Your task to perform on an android device: toggle show notifications on the lock screen Image 0: 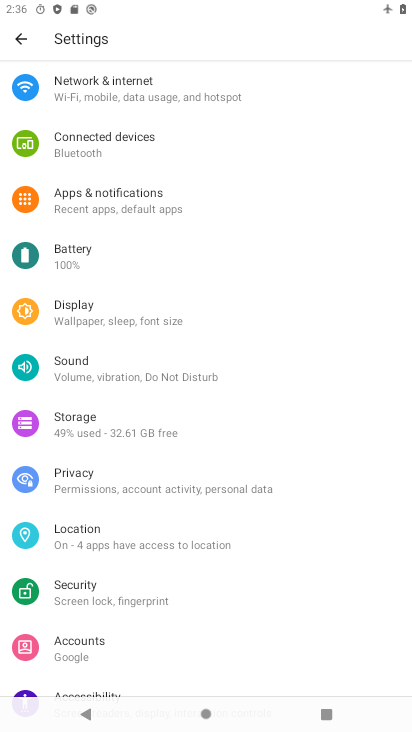
Step 0: click (103, 200)
Your task to perform on an android device: toggle show notifications on the lock screen Image 1: 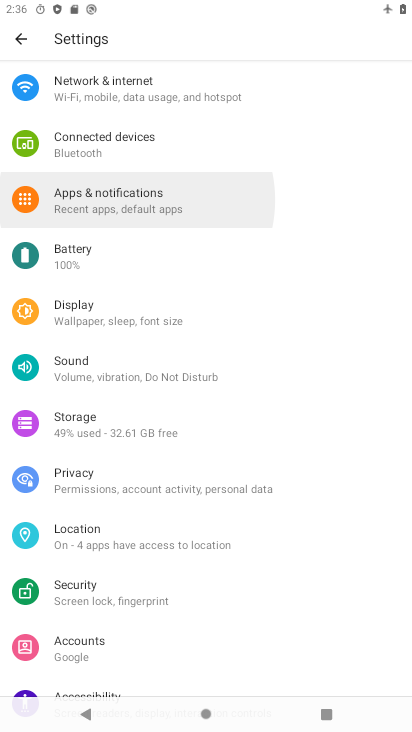
Step 1: click (103, 200)
Your task to perform on an android device: toggle show notifications on the lock screen Image 2: 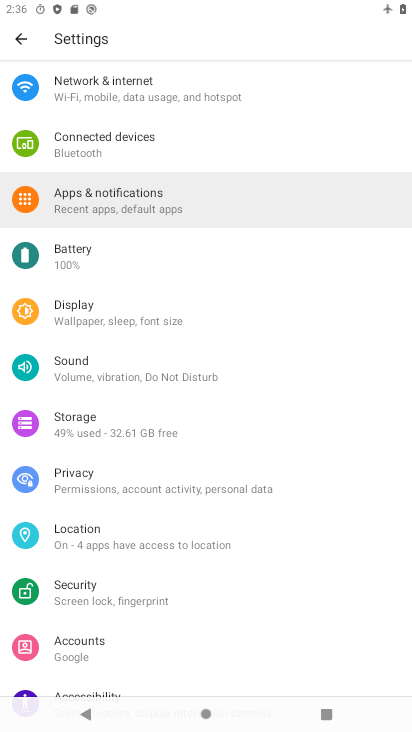
Step 2: click (103, 200)
Your task to perform on an android device: toggle show notifications on the lock screen Image 3: 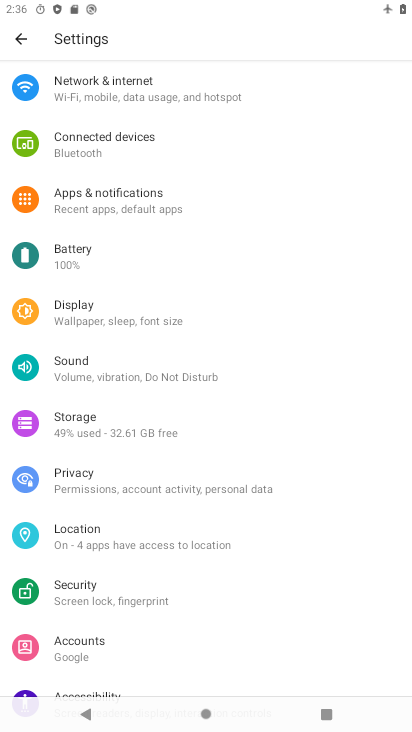
Step 3: click (104, 200)
Your task to perform on an android device: toggle show notifications on the lock screen Image 4: 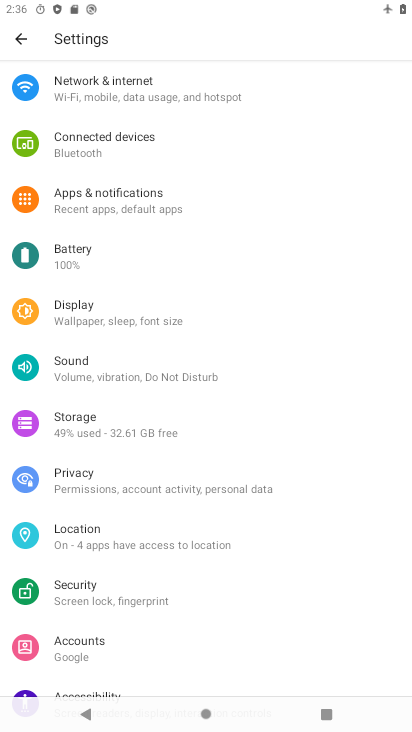
Step 4: click (104, 200)
Your task to perform on an android device: toggle show notifications on the lock screen Image 5: 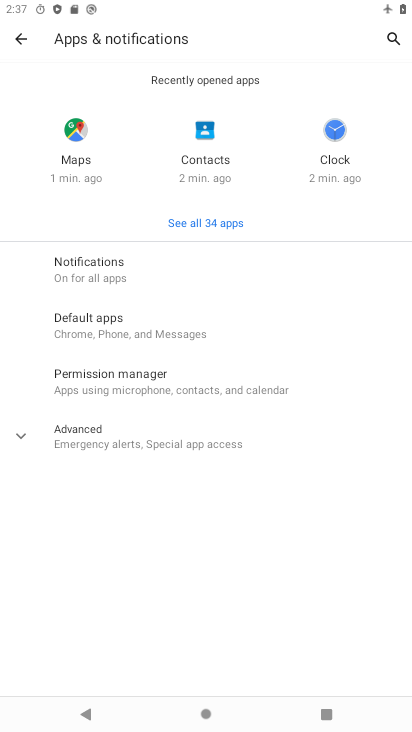
Step 5: click (87, 273)
Your task to perform on an android device: toggle show notifications on the lock screen Image 6: 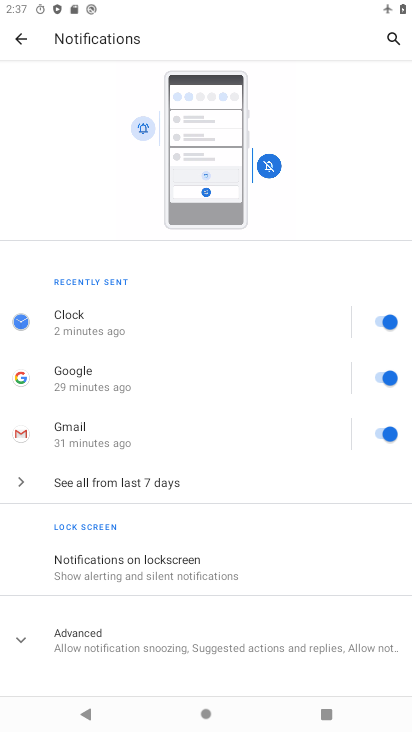
Step 6: click (104, 261)
Your task to perform on an android device: toggle show notifications on the lock screen Image 7: 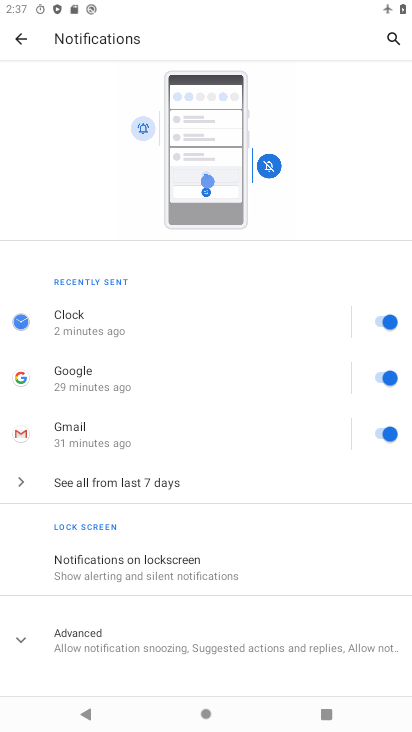
Step 7: click (104, 261)
Your task to perform on an android device: toggle show notifications on the lock screen Image 8: 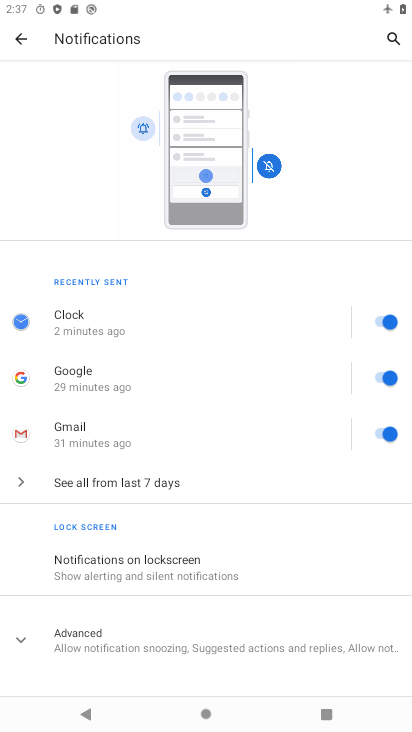
Step 8: click (104, 263)
Your task to perform on an android device: toggle show notifications on the lock screen Image 9: 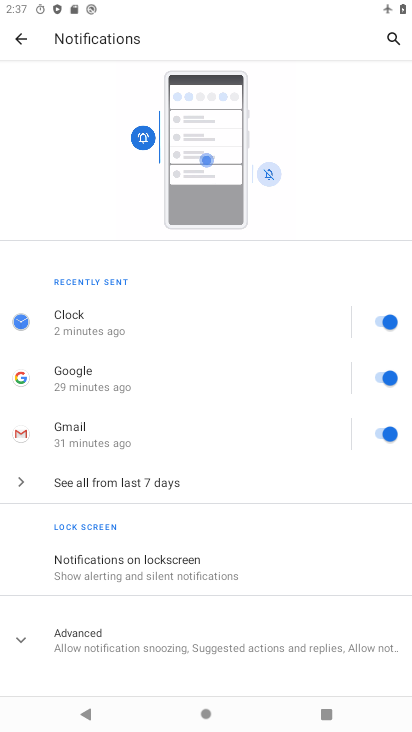
Step 9: click (115, 574)
Your task to perform on an android device: toggle show notifications on the lock screen Image 10: 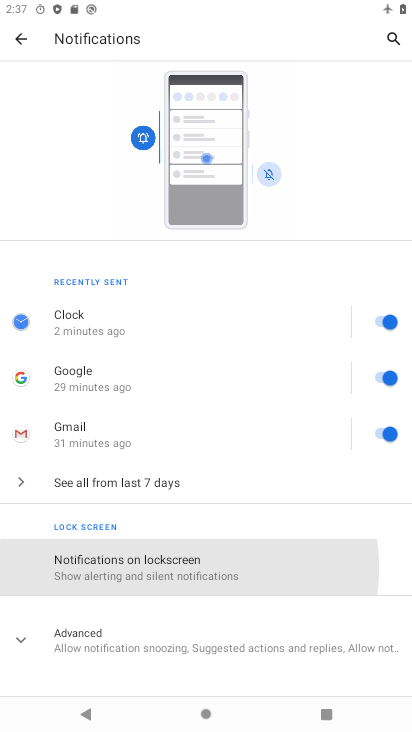
Step 10: click (117, 570)
Your task to perform on an android device: toggle show notifications on the lock screen Image 11: 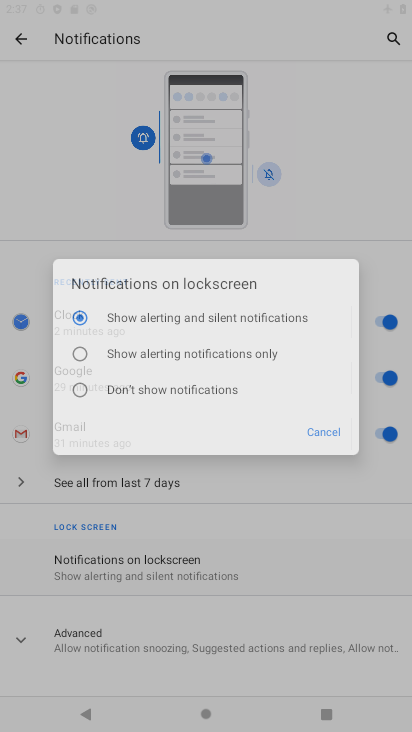
Step 11: click (118, 570)
Your task to perform on an android device: toggle show notifications on the lock screen Image 12: 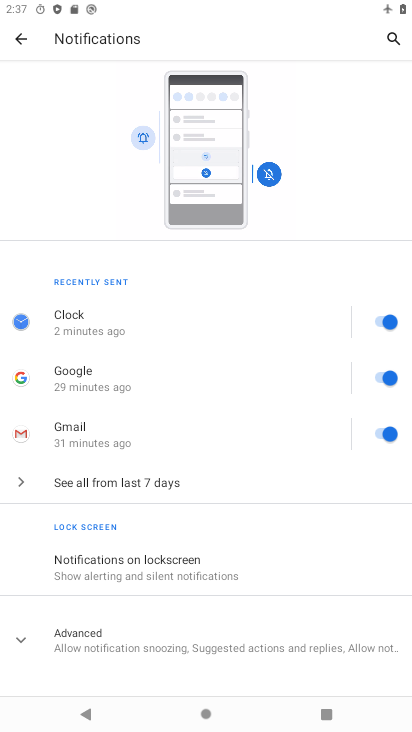
Step 12: task complete